Your task to perform on an android device: Open Chrome and go to settings Image 0: 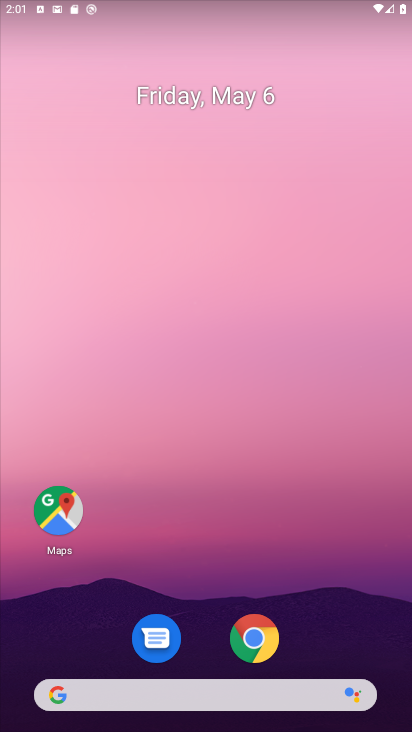
Step 0: click (242, 630)
Your task to perform on an android device: Open Chrome and go to settings Image 1: 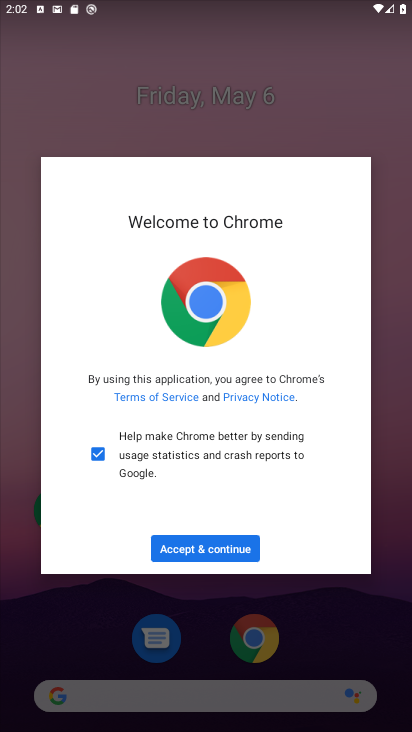
Step 1: click (211, 543)
Your task to perform on an android device: Open Chrome and go to settings Image 2: 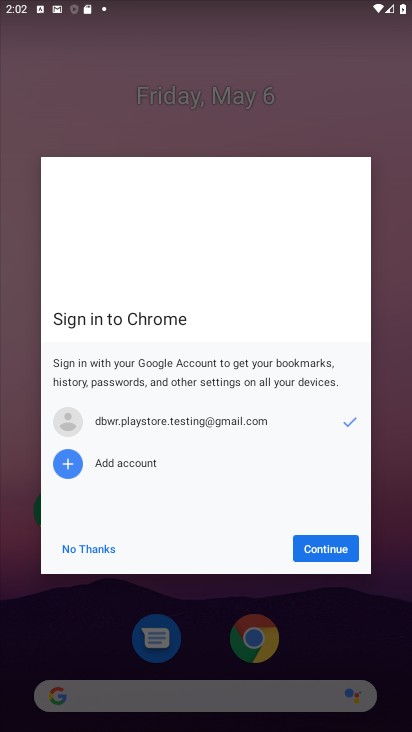
Step 2: click (315, 552)
Your task to perform on an android device: Open Chrome and go to settings Image 3: 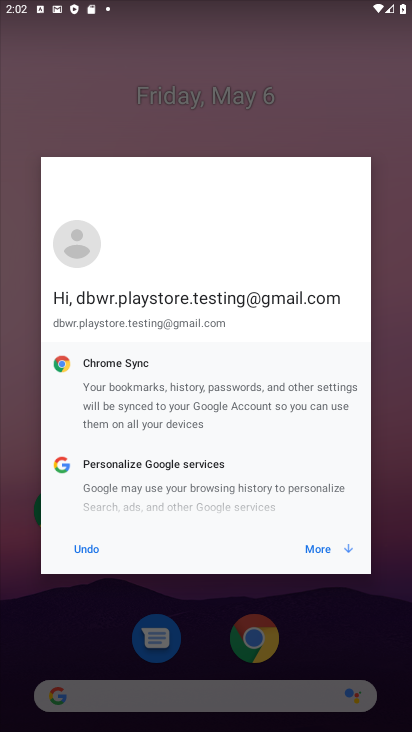
Step 3: click (315, 552)
Your task to perform on an android device: Open Chrome and go to settings Image 4: 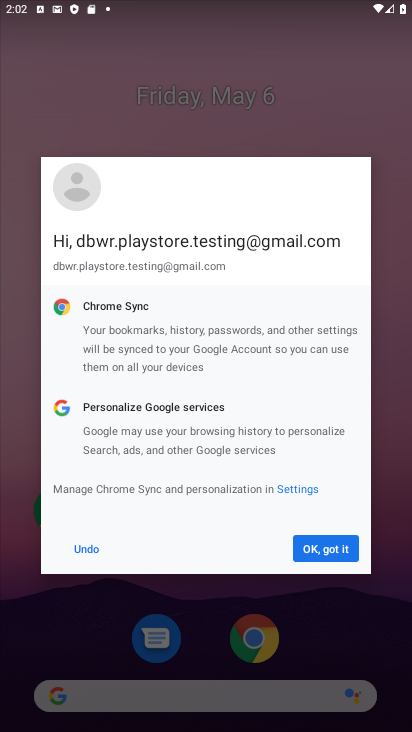
Step 4: click (315, 552)
Your task to perform on an android device: Open Chrome and go to settings Image 5: 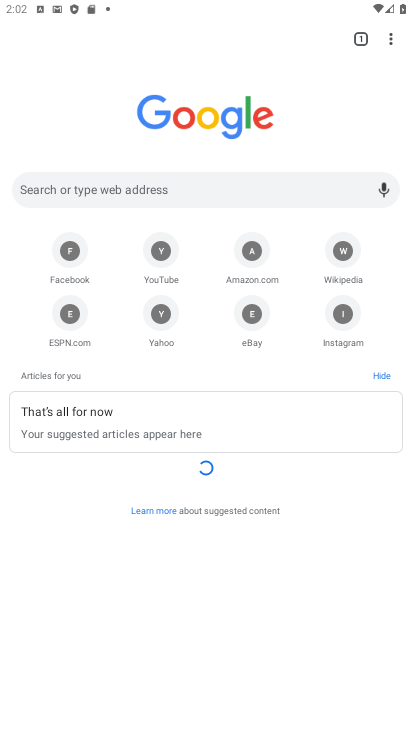
Step 5: drag from (391, 40) to (282, 334)
Your task to perform on an android device: Open Chrome and go to settings Image 6: 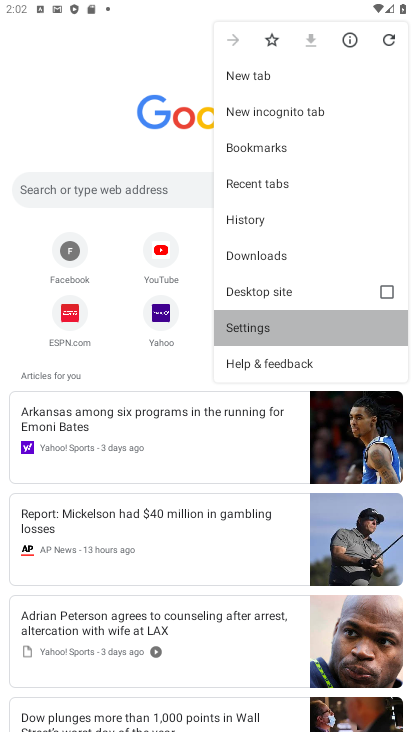
Step 6: click (280, 334)
Your task to perform on an android device: Open Chrome and go to settings Image 7: 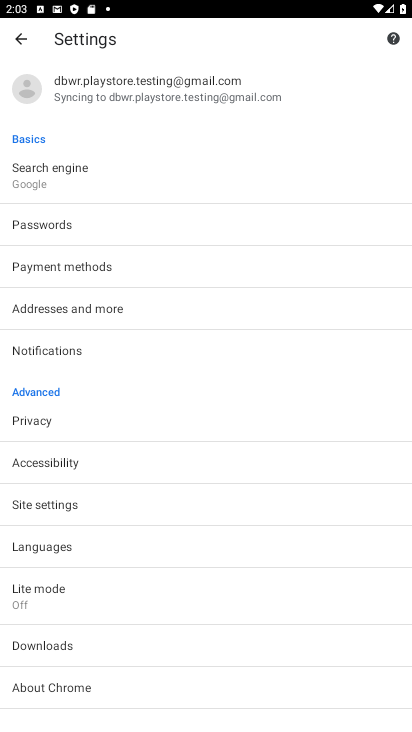
Step 7: task complete